Your task to perform on an android device: Open privacy settings Image 0: 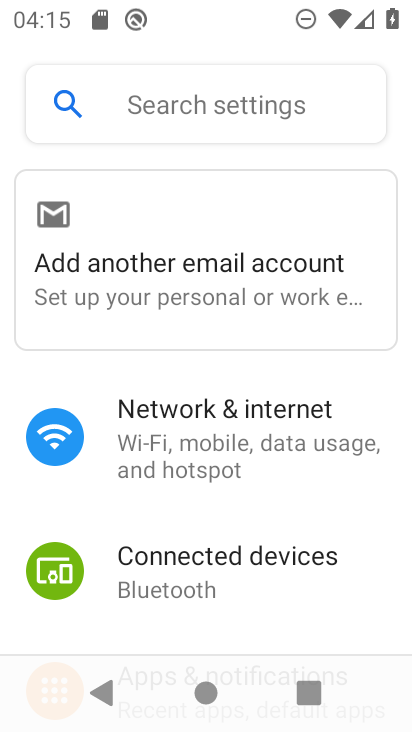
Step 0: drag from (301, 572) to (268, 266)
Your task to perform on an android device: Open privacy settings Image 1: 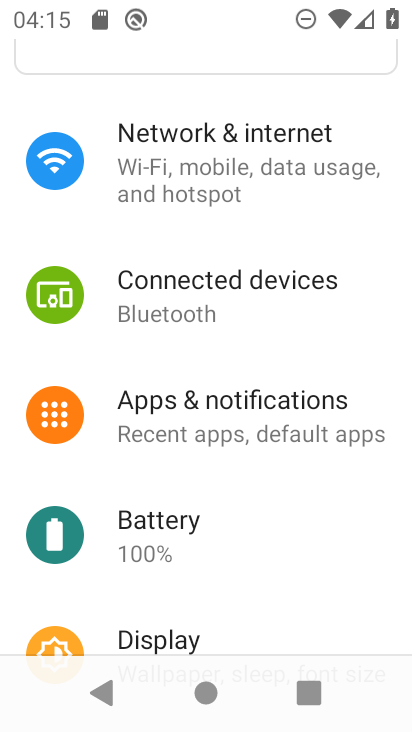
Step 1: drag from (292, 558) to (333, 270)
Your task to perform on an android device: Open privacy settings Image 2: 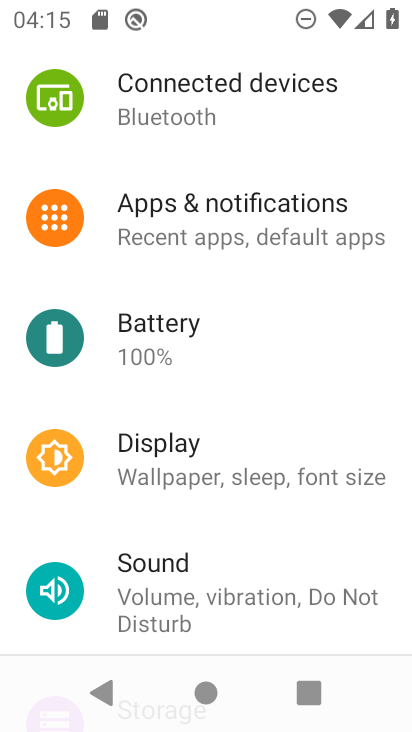
Step 2: drag from (324, 573) to (344, 249)
Your task to perform on an android device: Open privacy settings Image 3: 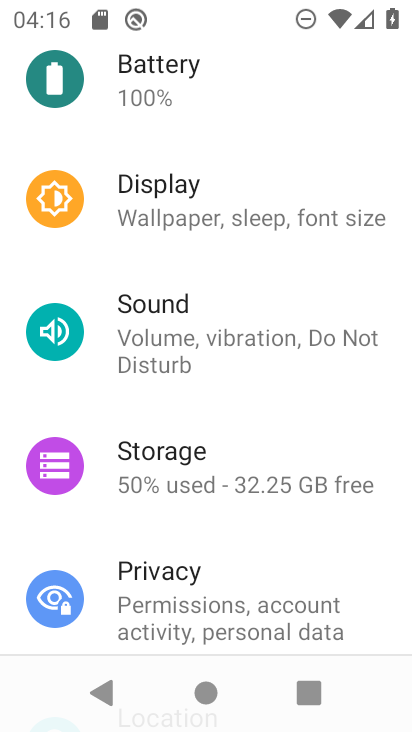
Step 3: drag from (292, 578) to (318, 314)
Your task to perform on an android device: Open privacy settings Image 4: 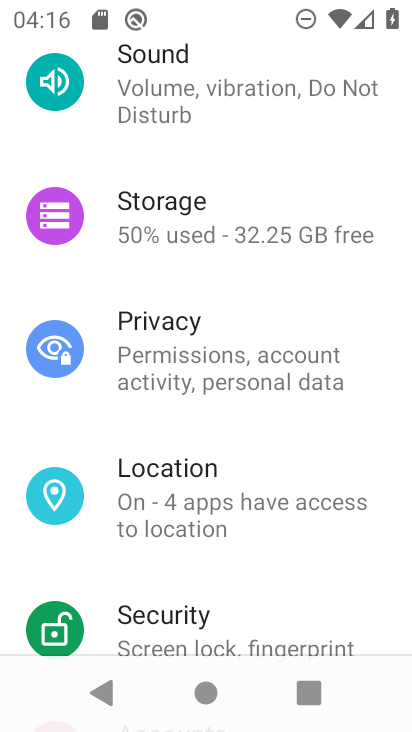
Step 4: drag from (306, 564) to (333, 327)
Your task to perform on an android device: Open privacy settings Image 5: 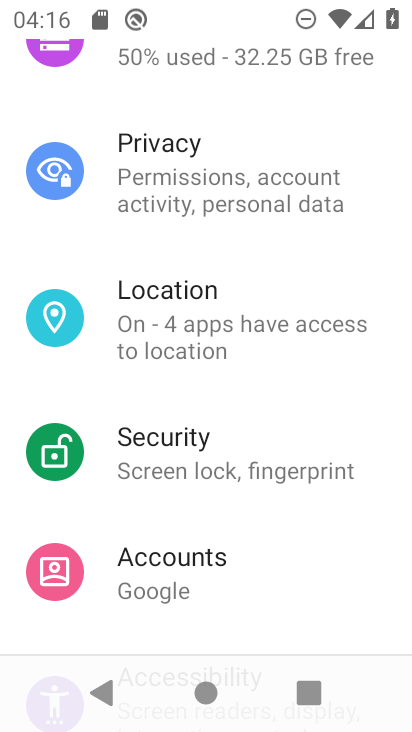
Step 5: click (154, 177)
Your task to perform on an android device: Open privacy settings Image 6: 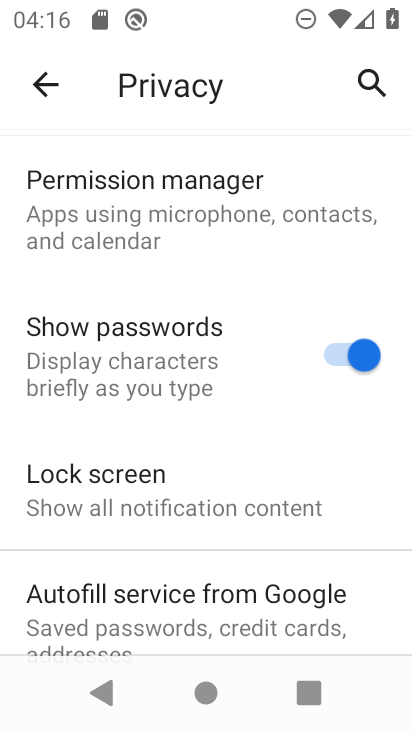
Step 6: drag from (322, 538) to (289, 203)
Your task to perform on an android device: Open privacy settings Image 7: 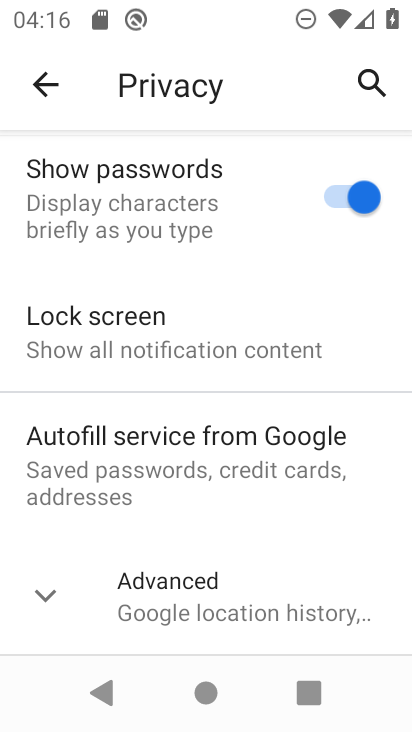
Step 7: click (45, 596)
Your task to perform on an android device: Open privacy settings Image 8: 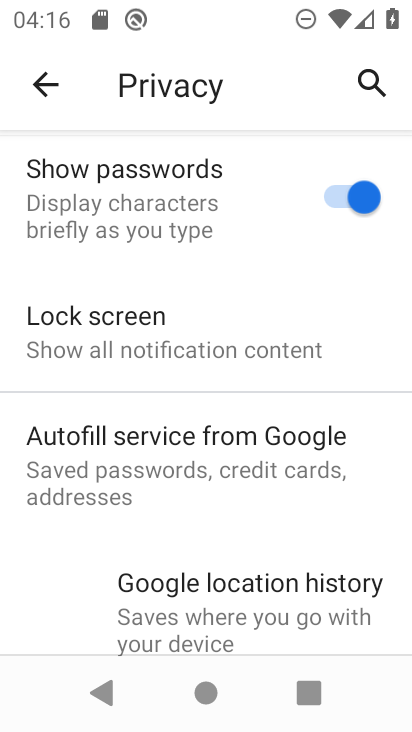
Step 8: task complete